Your task to perform on an android device: open app "Messages" Image 0: 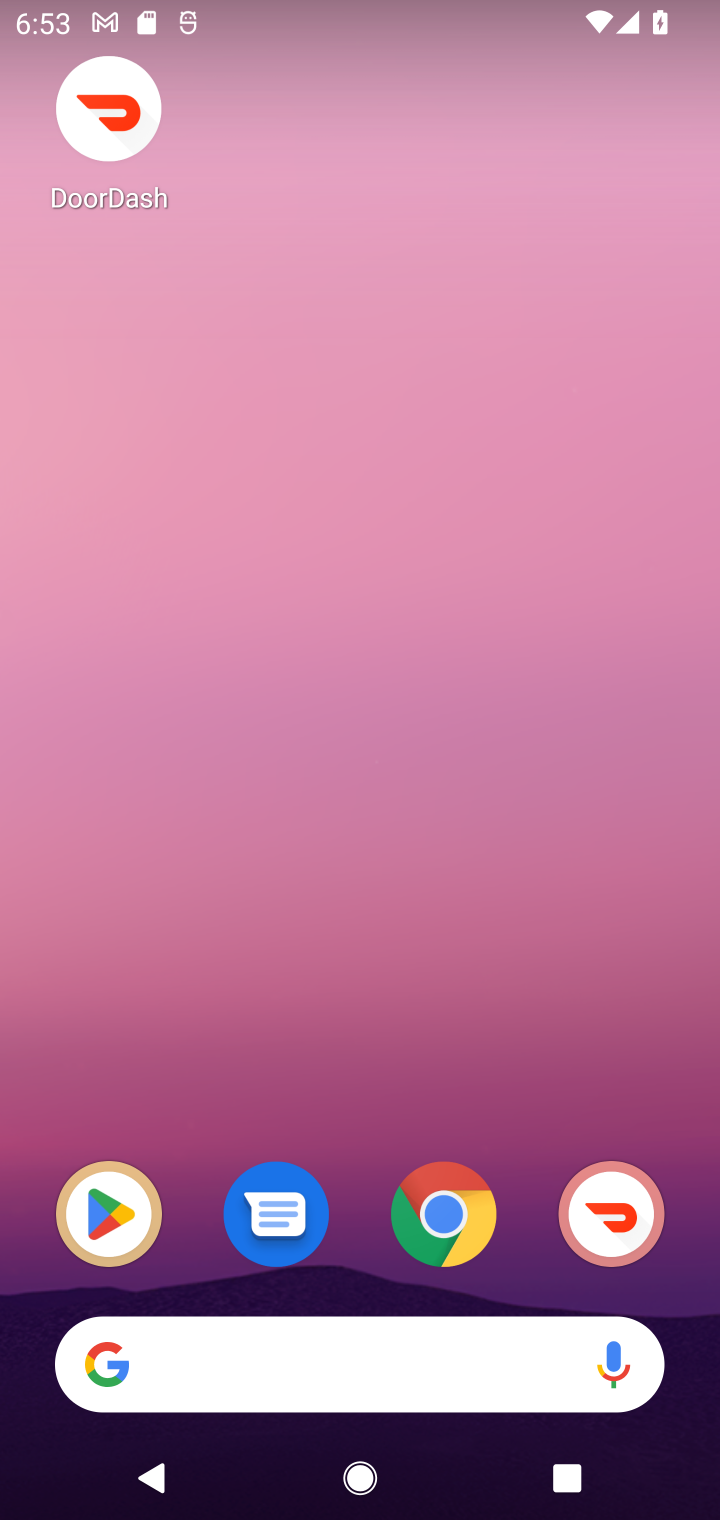
Step 0: drag from (417, 991) to (450, 67)
Your task to perform on an android device: open app "Messages" Image 1: 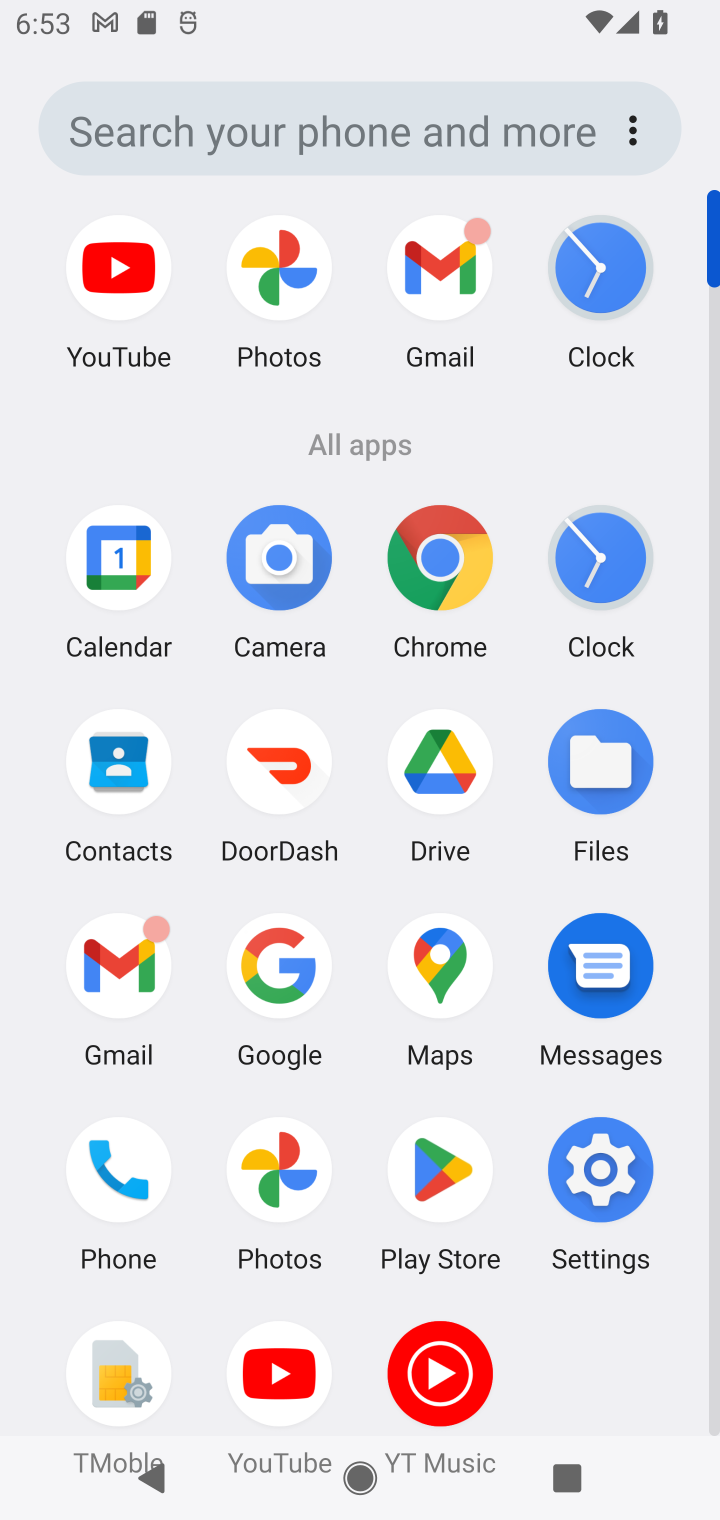
Step 1: click (458, 1133)
Your task to perform on an android device: open app "Messages" Image 2: 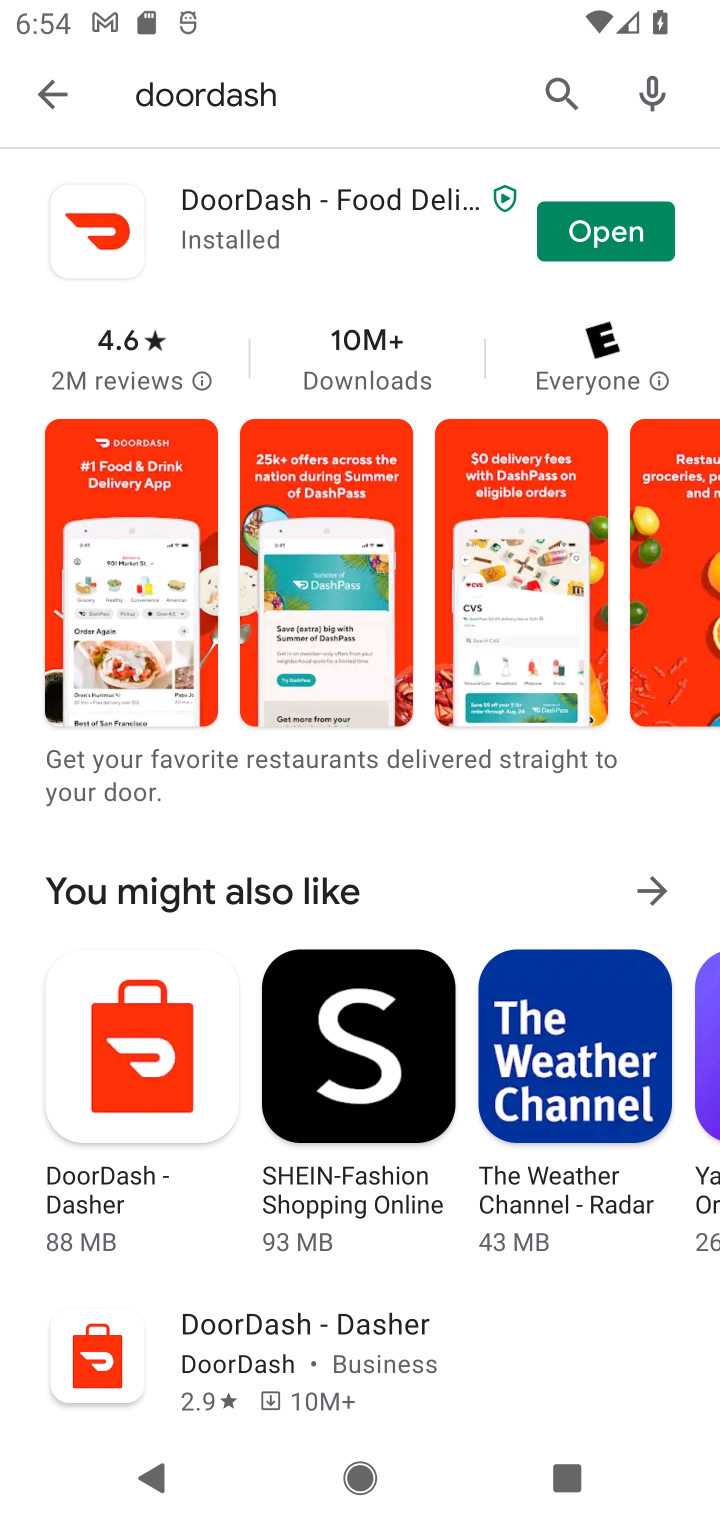
Step 2: click (391, 88)
Your task to perform on an android device: open app "Messages" Image 3: 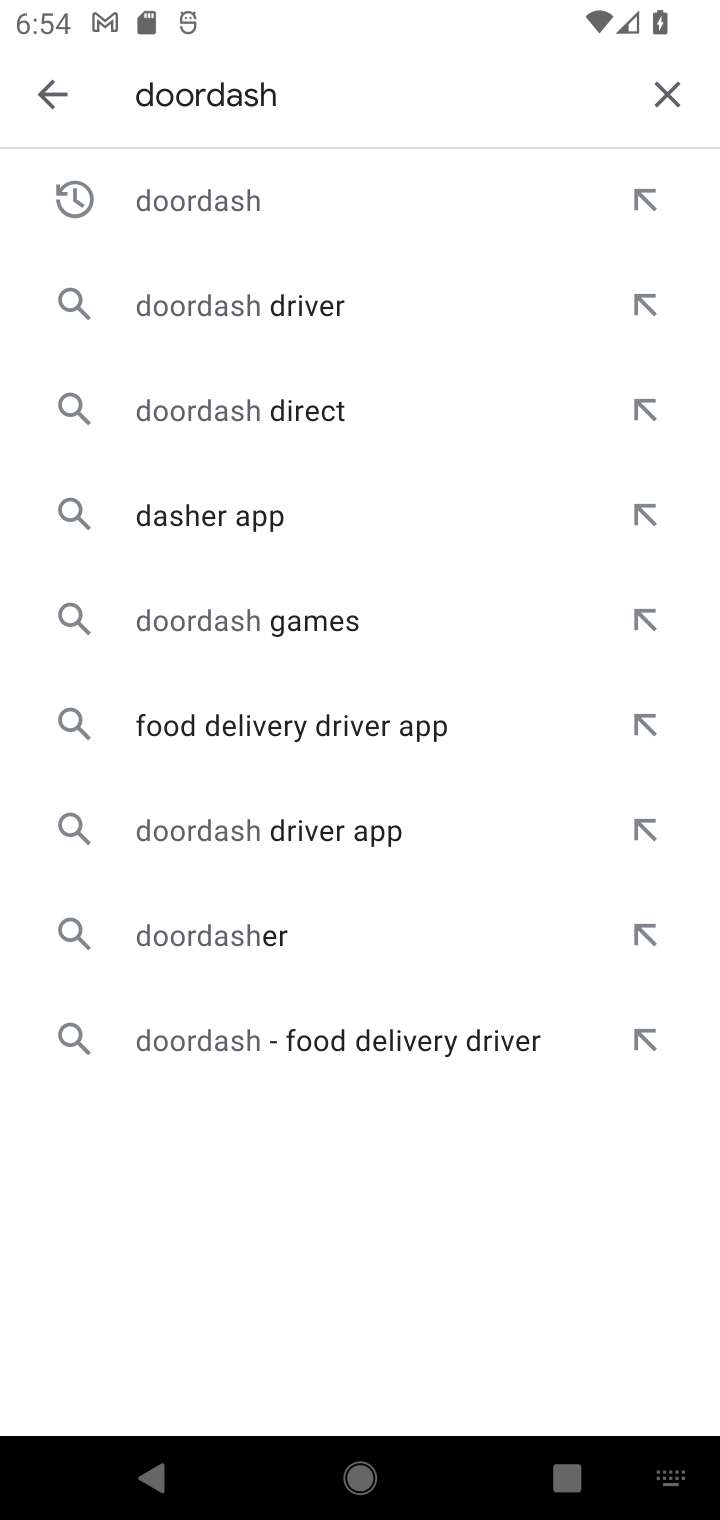
Step 3: click (666, 80)
Your task to perform on an android device: open app "Messages" Image 4: 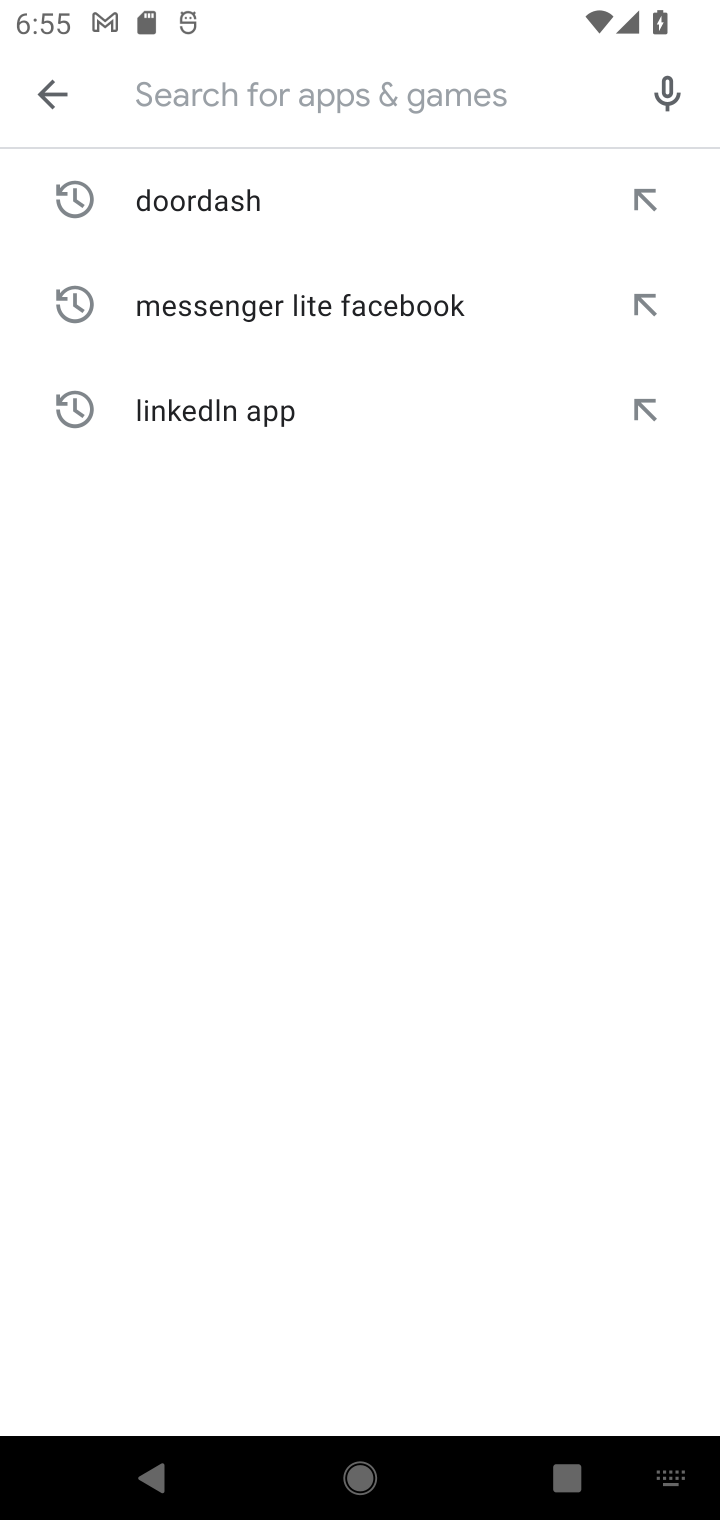
Step 4: type "messages"
Your task to perform on an android device: open app "Messages" Image 5: 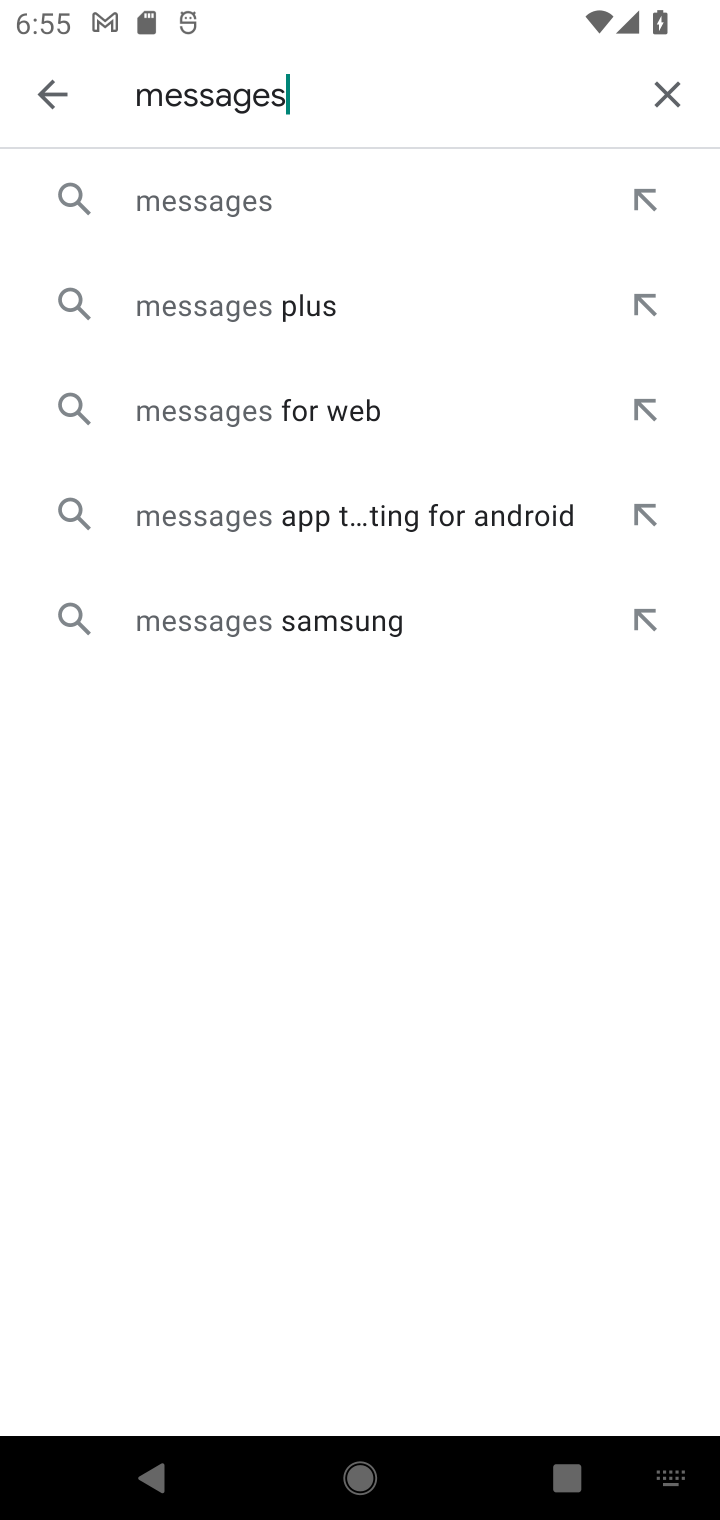
Step 5: click (274, 241)
Your task to perform on an android device: open app "Messages" Image 6: 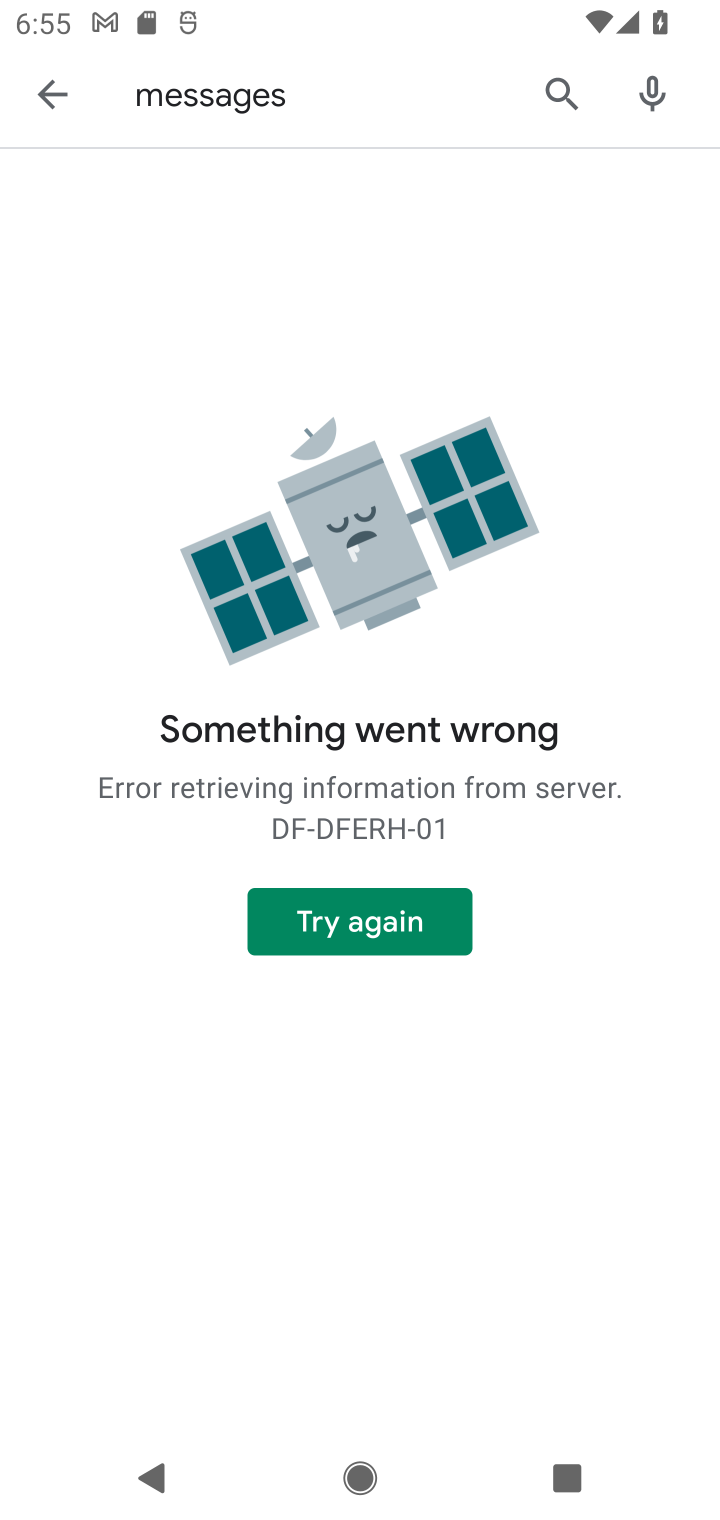
Step 6: task complete